Your task to perform on an android device: toggle pop-ups in chrome Image 0: 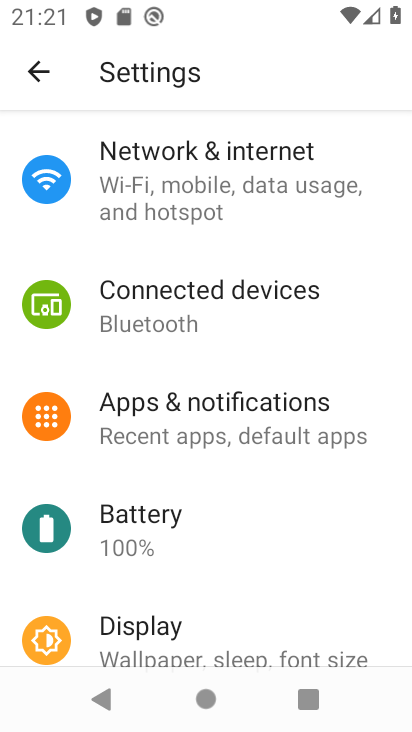
Step 0: press home button
Your task to perform on an android device: toggle pop-ups in chrome Image 1: 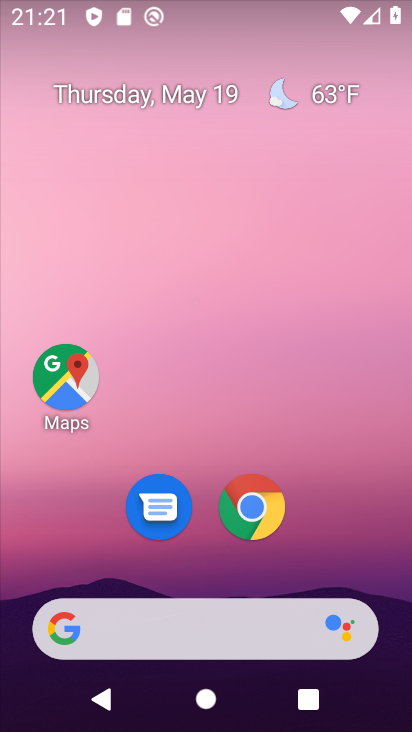
Step 1: click (270, 495)
Your task to perform on an android device: toggle pop-ups in chrome Image 2: 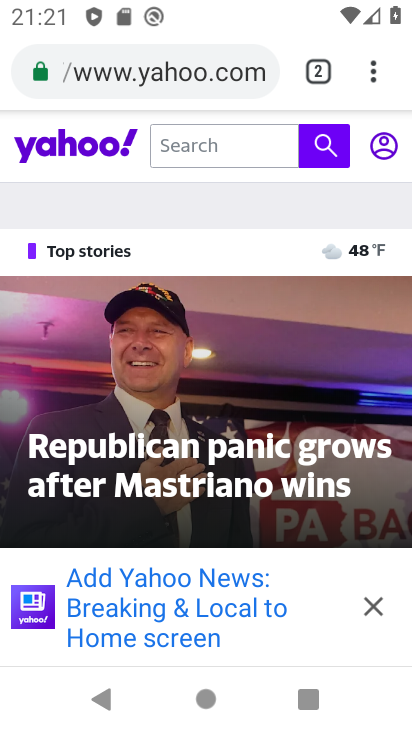
Step 2: click (388, 73)
Your task to perform on an android device: toggle pop-ups in chrome Image 3: 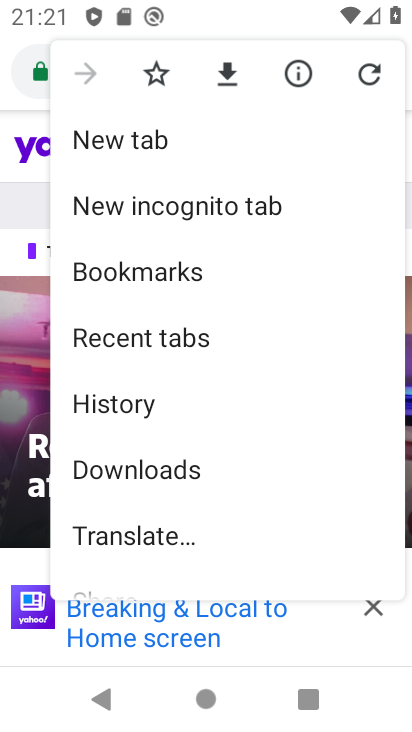
Step 3: drag from (226, 545) to (199, 124)
Your task to perform on an android device: toggle pop-ups in chrome Image 4: 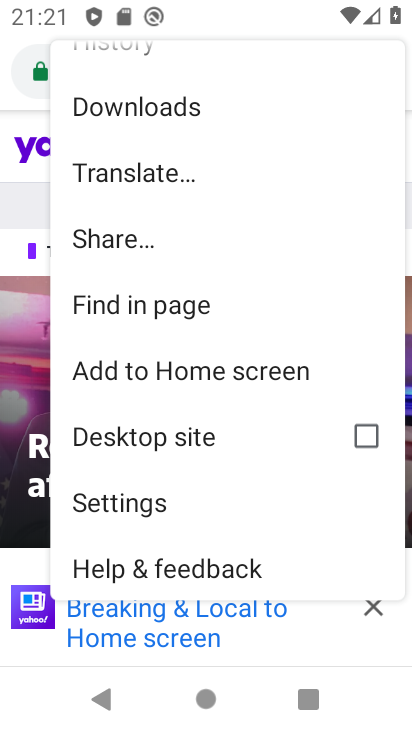
Step 4: click (172, 493)
Your task to perform on an android device: toggle pop-ups in chrome Image 5: 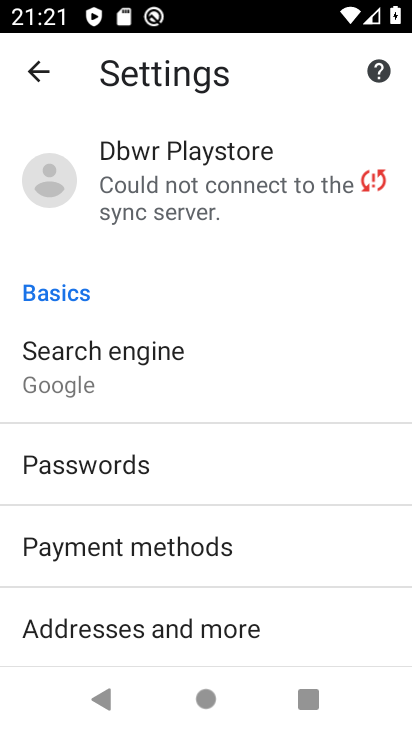
Step 5: drag from (264, 610) to (246, 167)
Your task to perform on an android device: toggle pop-ups in chrome Image 6: 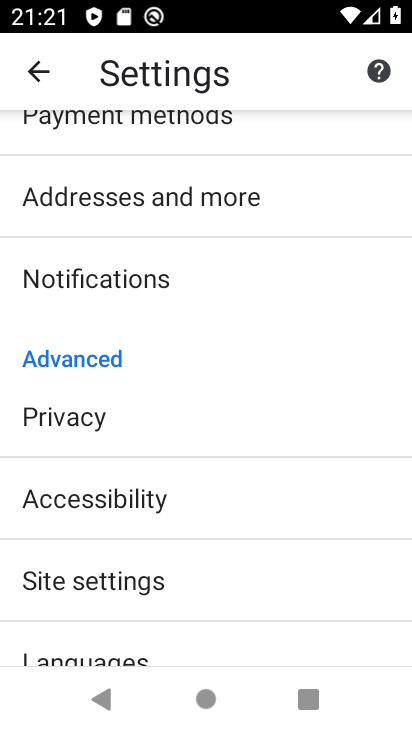
Step 6: click (223, 560)
Your task to perform on an android device: toggle pop-ups in chrome Image 7: 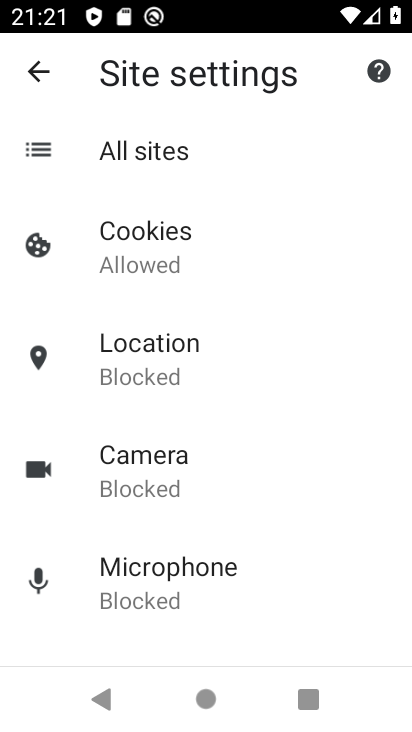
Step 7: drag from (263, 595) to (273, 108)
Your task to perform on an android device: toggle pop-ups in chrome Image 8: 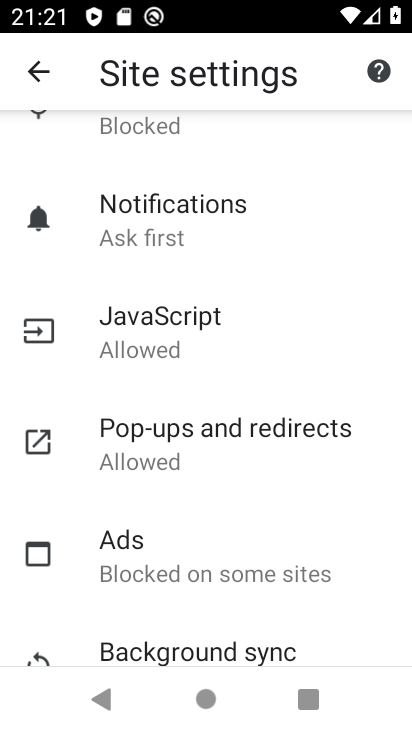
Step 8: click (255, 425)
Your task to perform on an android device: toggle pop-ups in chrome Image 9: 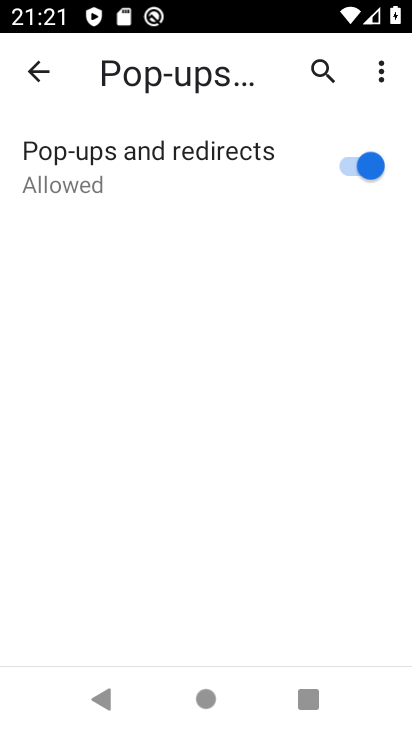
Step 9: click (359, 143)
Your task to perform on an android device: toggle pop-ups in chrome Image 10: 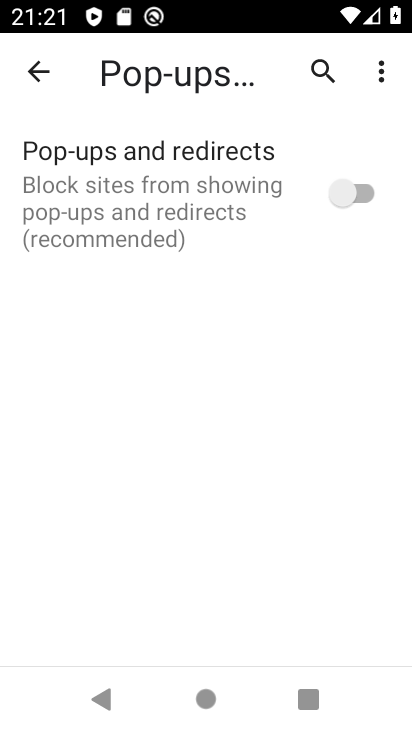
Step 10: task complete